Your task to perform on an android device: Open sound settings Image 0: 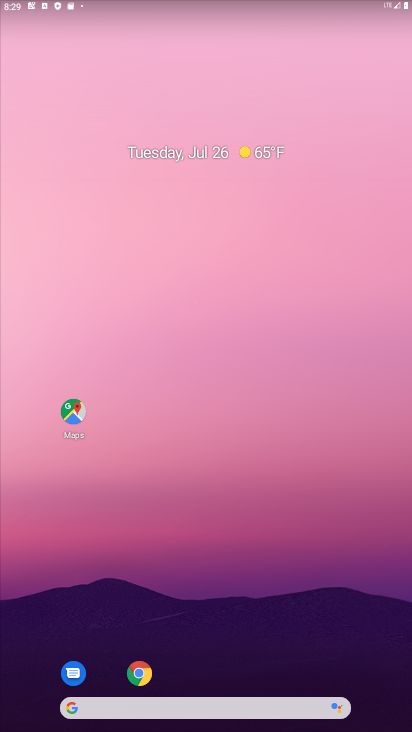
Step 0: drag from (228, 603) to (184, 175)
Your task to perform on an android device: Open sound settings Image 1: 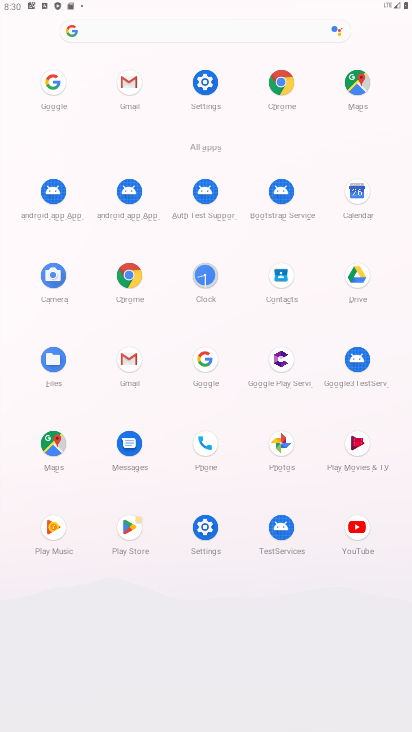
Step 1: click (215, 87)
Your task to perform on an android device: Open sound settings Image 2: 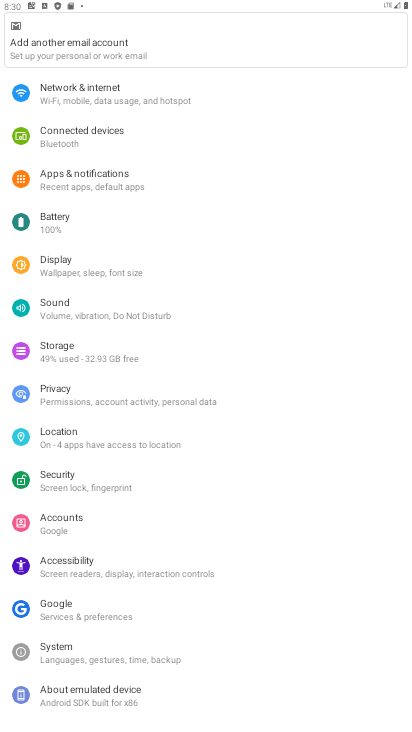
Step 2: click (80, 309)
Your task to perform on an android device: Open sound settings Image 3: 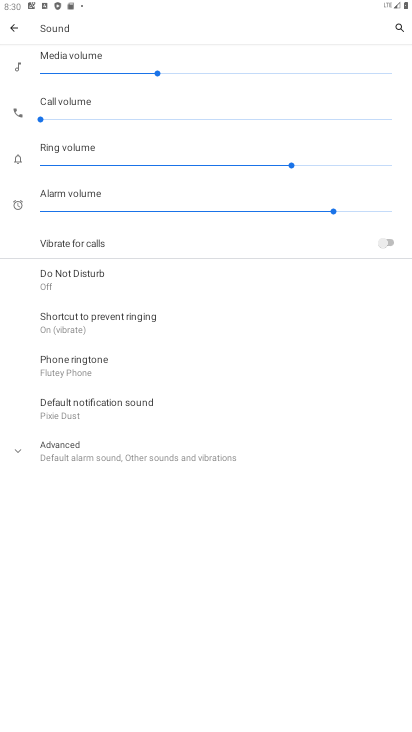
Step 3: task complete